Your task to perform on an android device: turn off picture-in-picture Image 0: 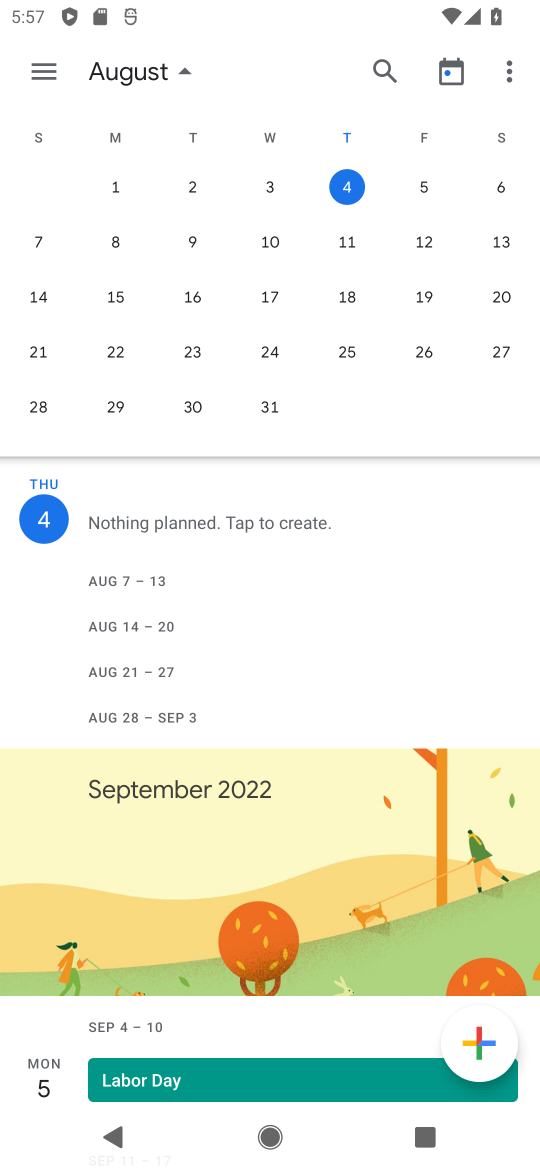
Step 0: press home button
Your task to perform on an android device: turn off picture-in-picture Image 1: 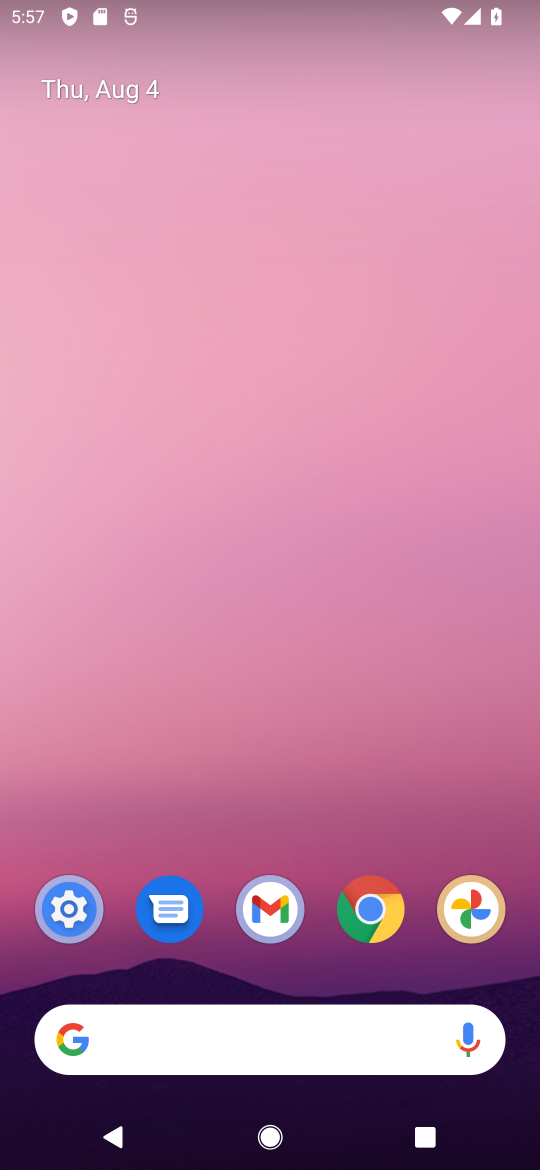
Step 1: drag from (303, 704) to (382, 61)
Your task to perform on an android device: turn off picture-in-picture Image 2: 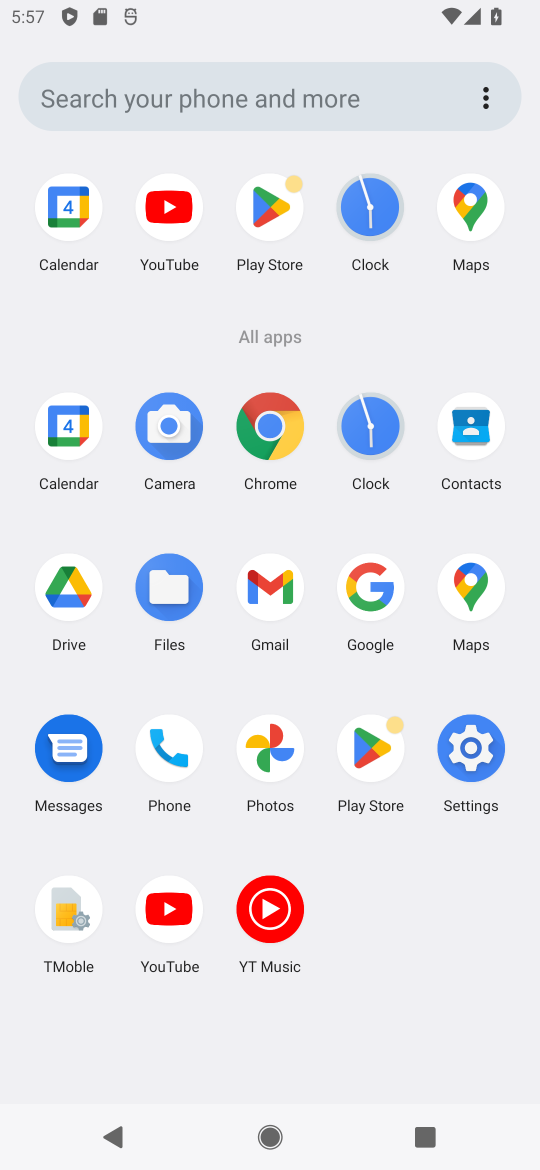
Step 2: click (295, 422)
Your task to perform on an android device: turn off picture-in-picture Image 3: 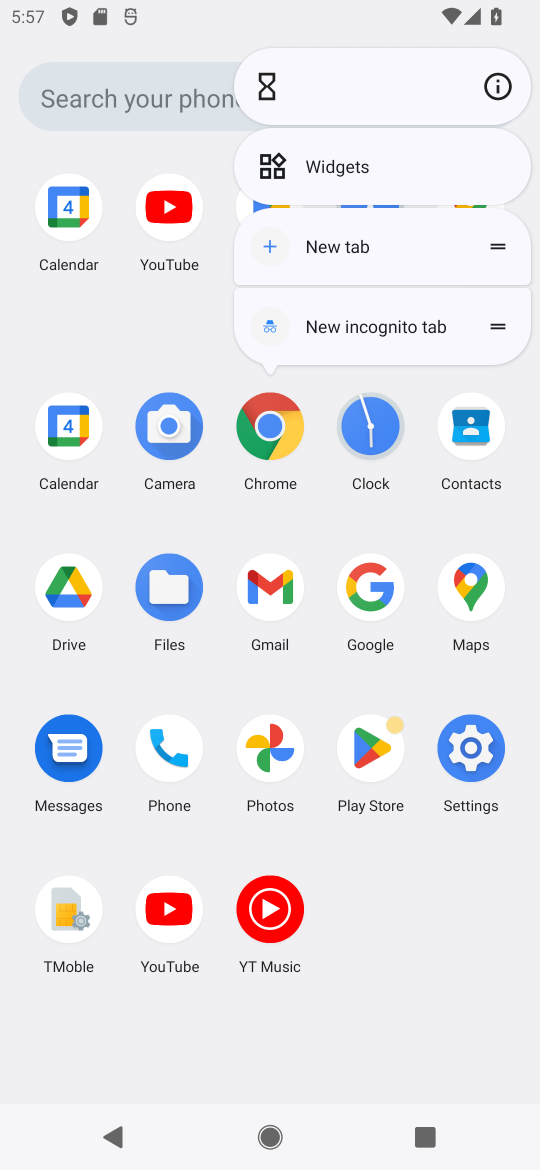
Step 3: click (495, 89)
Your task to perform on an android device: turn off picture-in-picture Image 4: 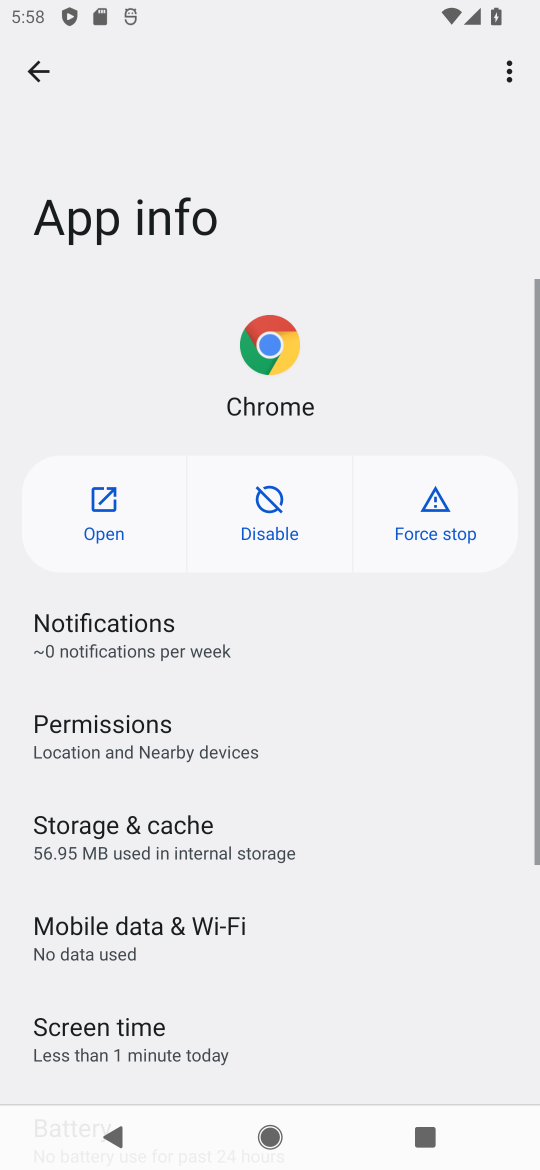
Step 4: drag from (216, 1035) to (260, 357)
Your task to perform on an android device: turn off picture-in-picture Image 5: 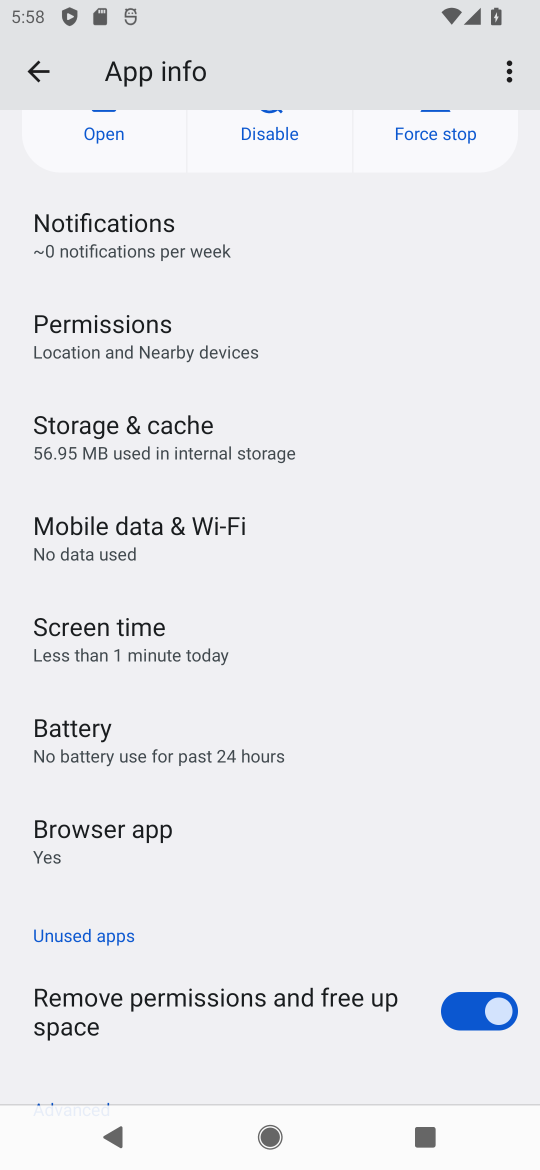
Step 5: drag from (312, 500) to (362, 1165)
Your task to perform on an android device: turn off picture-in-picture Image 6: 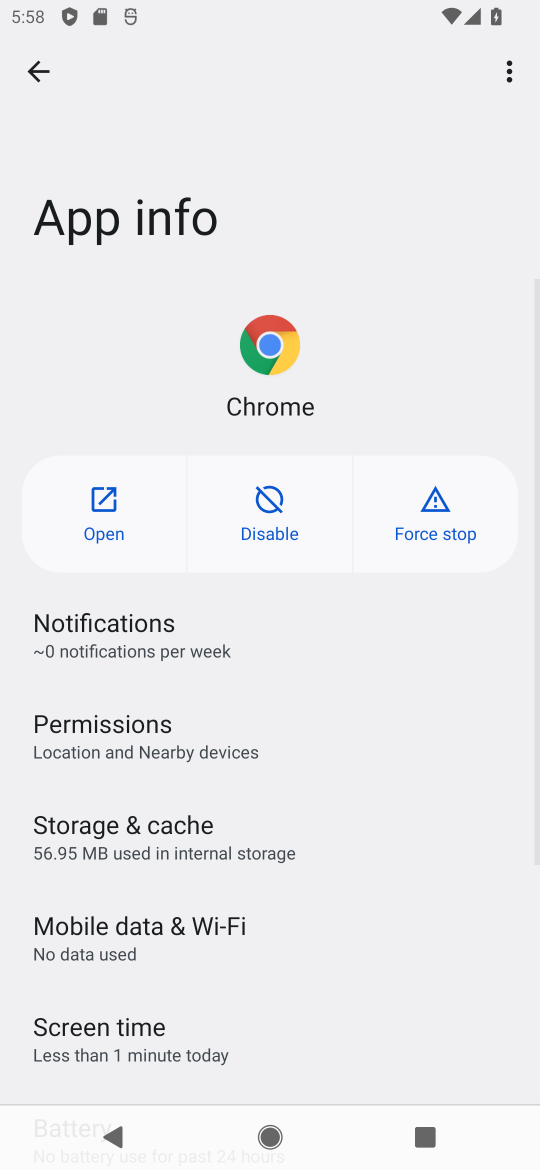
Step 6: drag from (281, 1048) to (368, 137)
Your task to perform on an android device: turn off picture-in-picture Image 7: 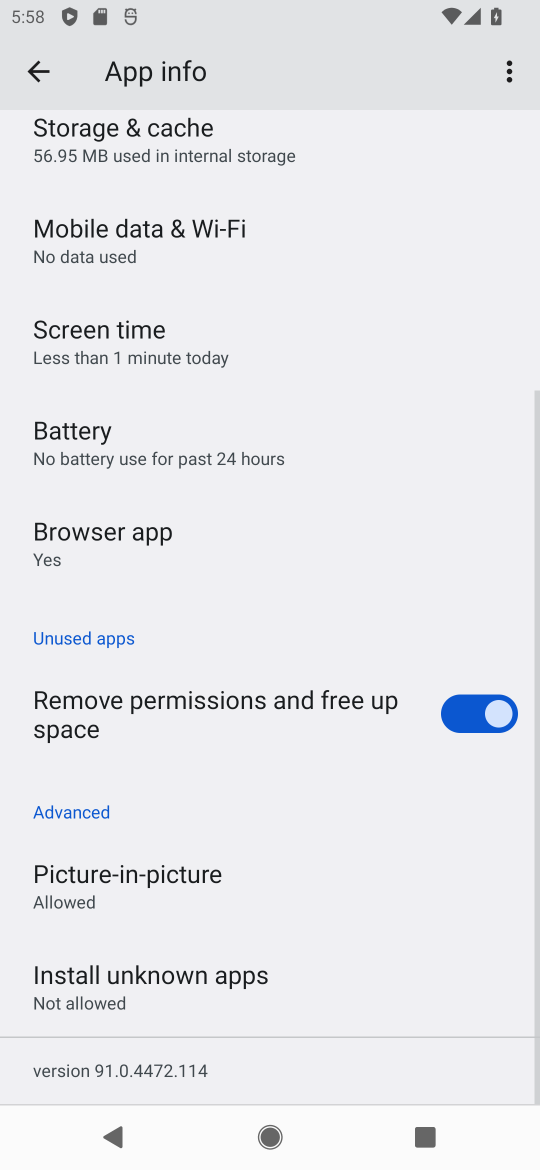
Step 7: drag from (220, 943) to (329, 192)
Your task to perform on an android device: turn off picture-in-picture Image 8: 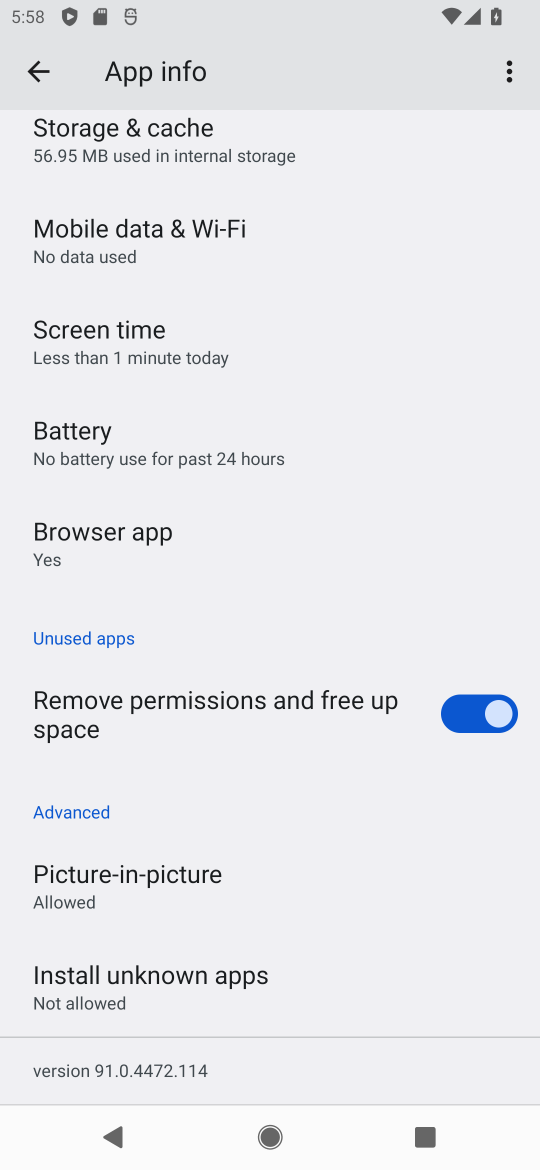
Step 8: click (150, 912)
Your task to perform on an android device: turn off picture-in-picture Image 9: 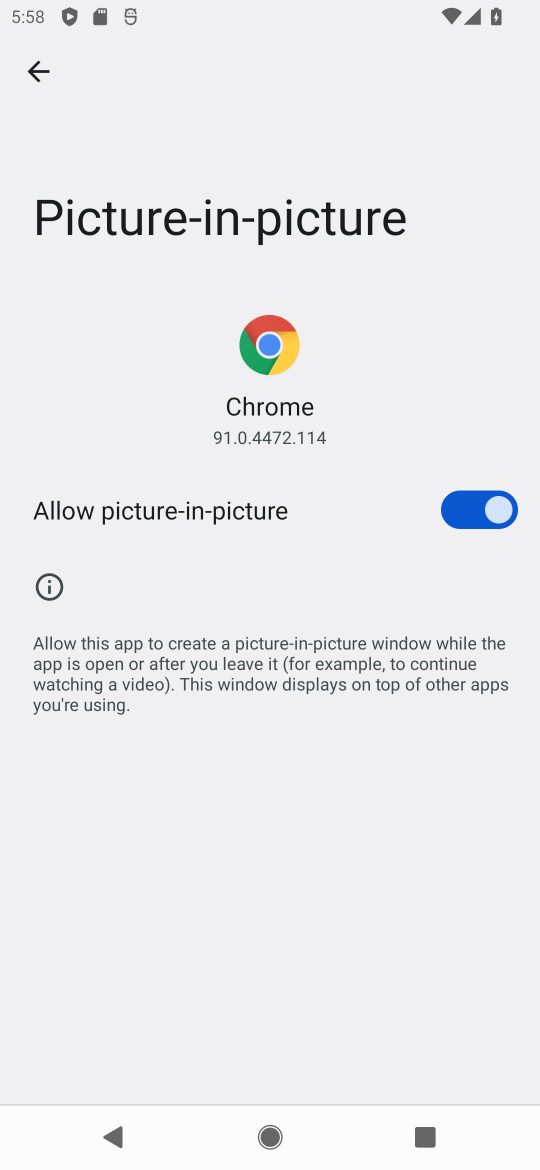
Step 9: click (458, 504)
Your task to perform on an android device: turn off picture-in-picture Image 10: 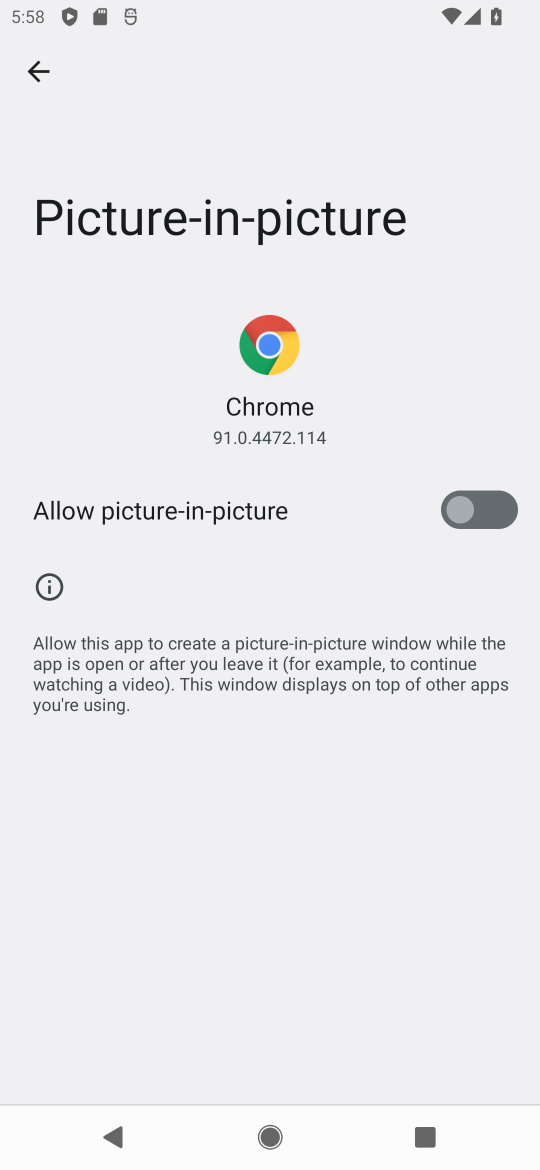
Step 10: task complete